Your task to perform on an android device: star an email in the gmail app Image 0: 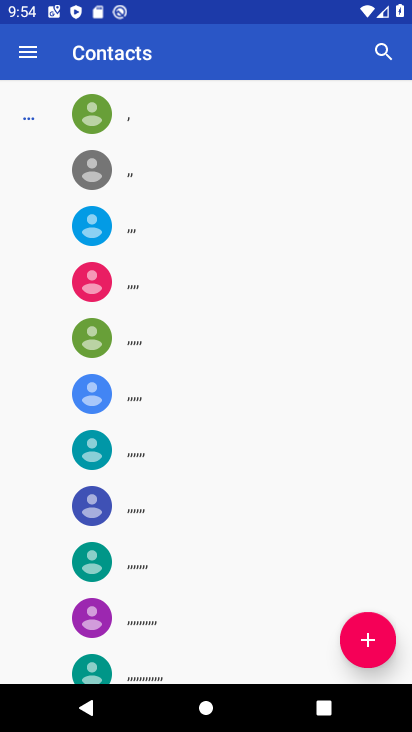
Step 0: press home button
Your task to perform on an android device: star an email in the gmail app Image 1: 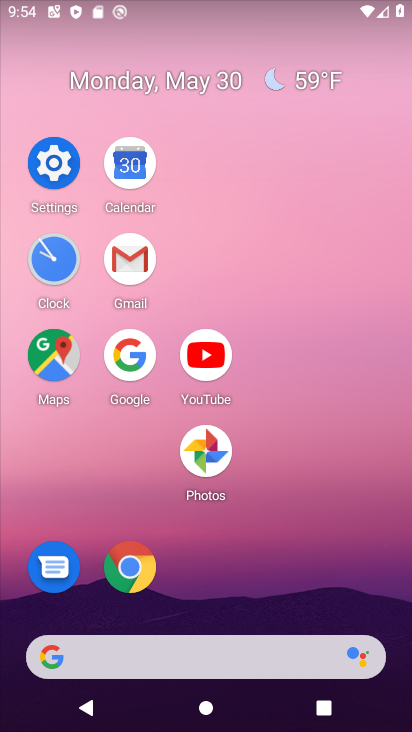
Step 1: click (135, 272)
Your task to perform on an android device: star an email in the gmail app Image 2: 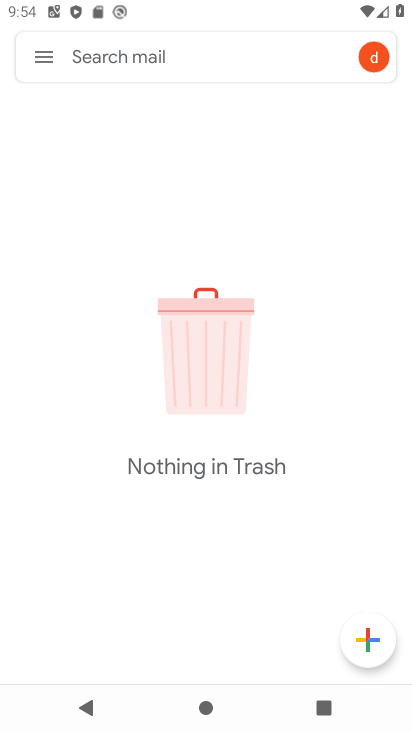
Step 2: click (36, 34)
Your task to perform on an android device: star an email in the gmail app Image 3: 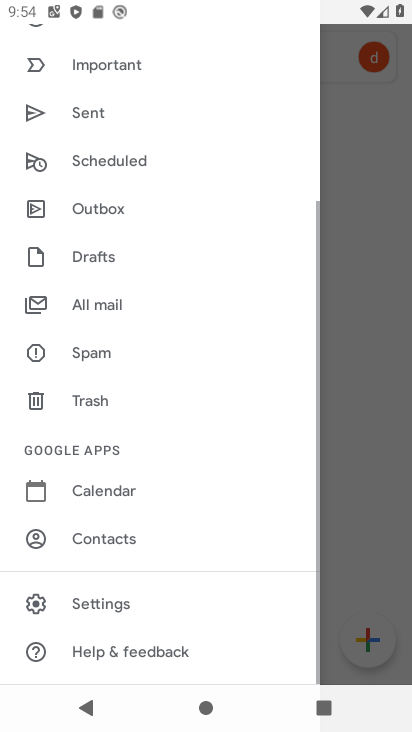
Step 3: click (178, 305)
Your task to perform on an android device: star an email in the gmail app Image 4: 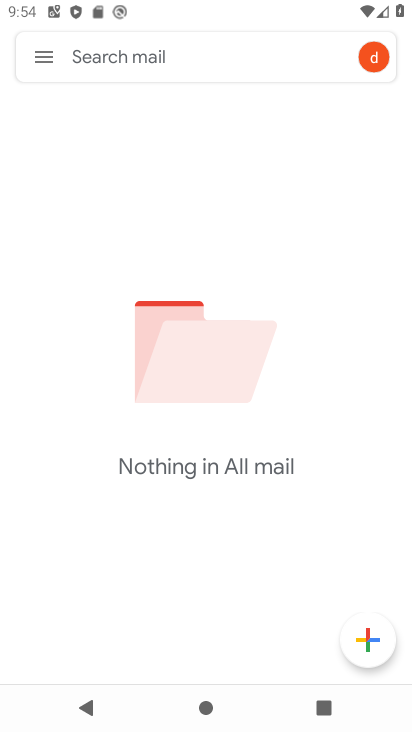
Step 4: task complete